Your task to perform on an android device: delete browsing data in the chrome app Image 0: 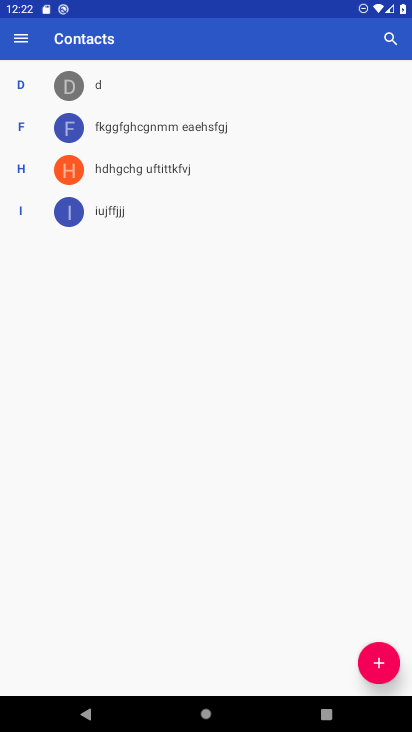
Step 0: press home button
Your task to perform on an android device: delete browsing data in the chrome app Image 1: 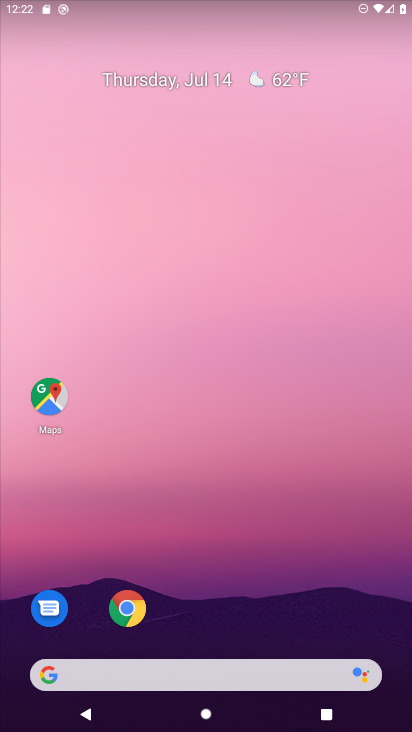
Step 1: drag from (243, 703) to (196, 81)
Your task to perform on an android device: delete browsing data in the chrome app Image 2: 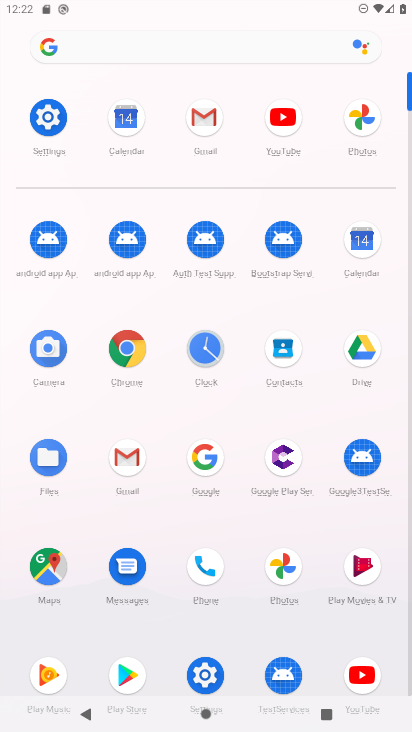
Step 2: click (128, 342)
Your task to perform on an android device: delete browsing data in the chrome app Image 3: 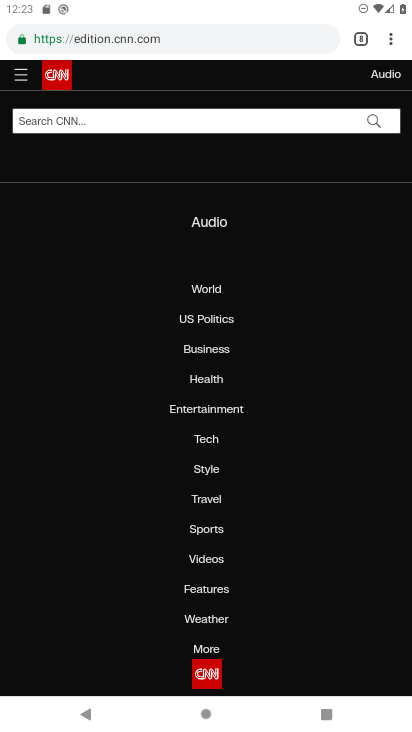
Step 3: click (390, 41)
Your task to perform on an android device: delete browsing data in the chrome app Image 4: 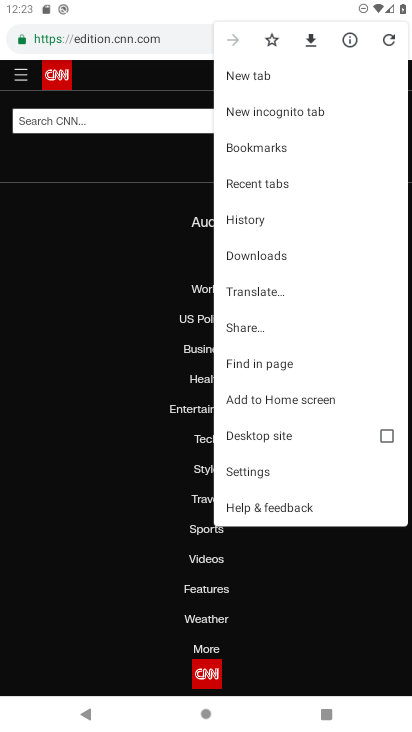
Step 4: click (245, 218)
Your task to perform on an android device: delete browsing data in the chrome app Image 5: 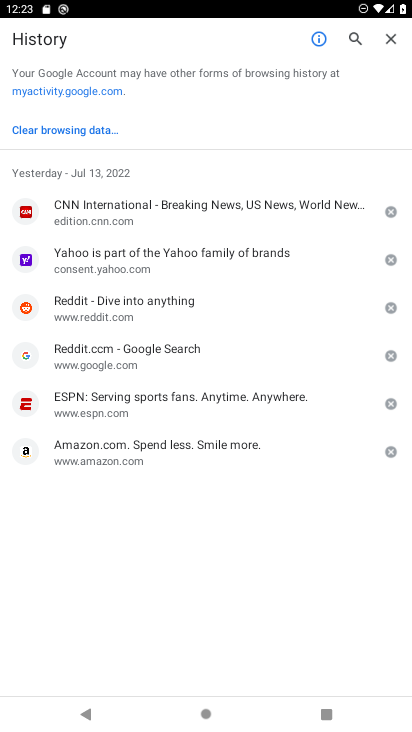
Step 5: click (53, 129)
Your task to perform on an android device: delete browsing data in the chrome app Image 6: 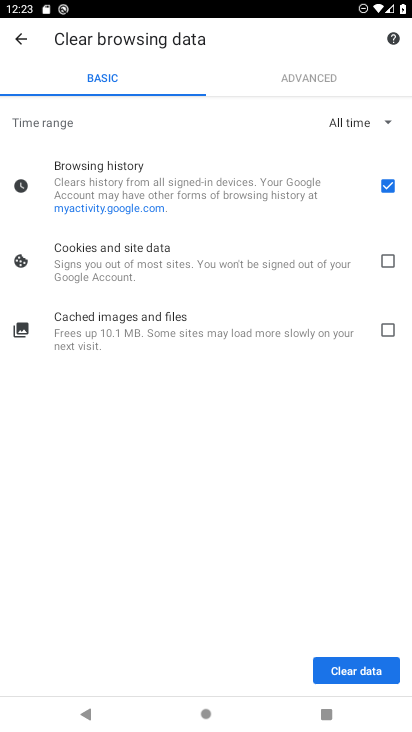
Step 6: click (352, 670)
Your task to perform on an android device: delete browsing data in the chrome app Image 7: 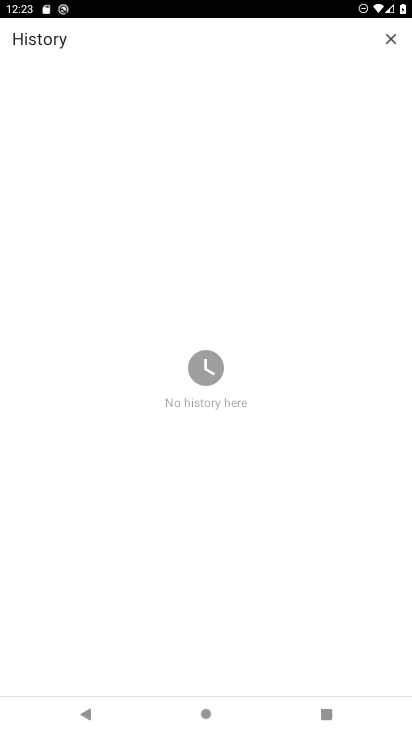
Step 7: task complete